Your task to perform on an android device: open a new tab in the chrome app Image 0: 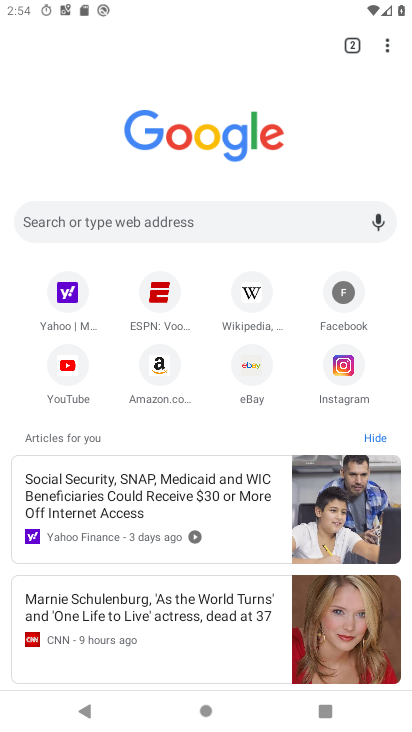
Step 0: press home button
Your task to perform on an android device: open a new tab in the chrome app Image 1: 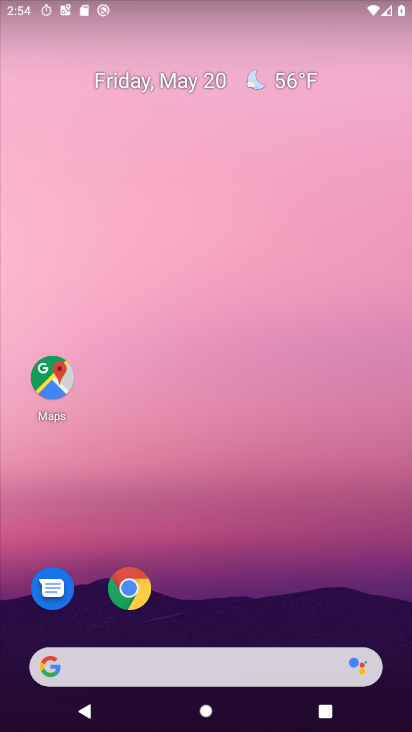
Step 1: click (134, 580)
Your task to perform on an android device: open a new tab in the chrome app Image 2: 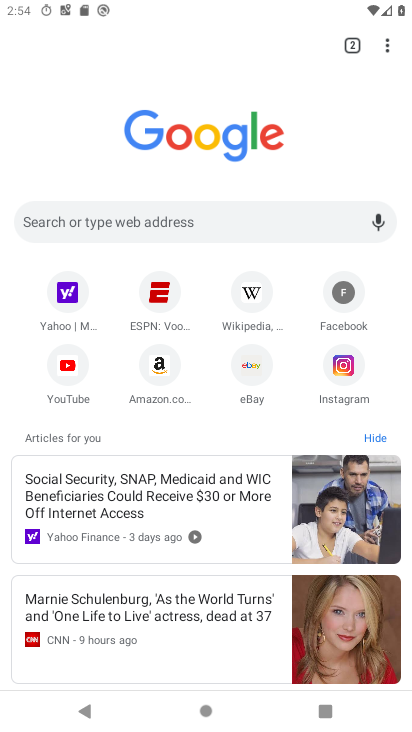
Step 2: click (358, 44)
Your task to perform on an android device: open a new tab in the chrome app Image 3: 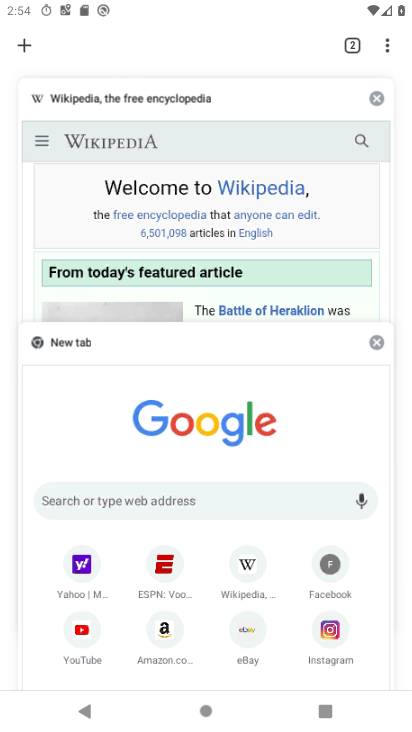
Step 3: click (369, 344)
Your task to perform on an android device: open a new tab in the chrome app Image 4: 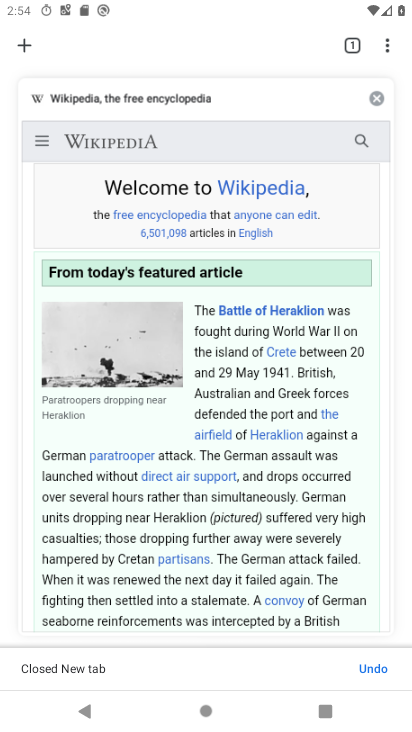
Step 4: click (22, 46)
Your task to perform on an android device: open a new tab in the chrome app Image 5: 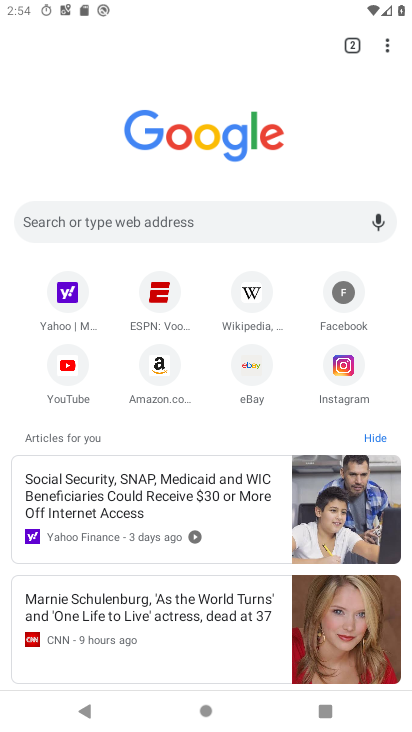
Step 5: task complete